Your task to perform on an android device: Clear the cart on costco. Add "usb-c" to the cart on costco Image 0: 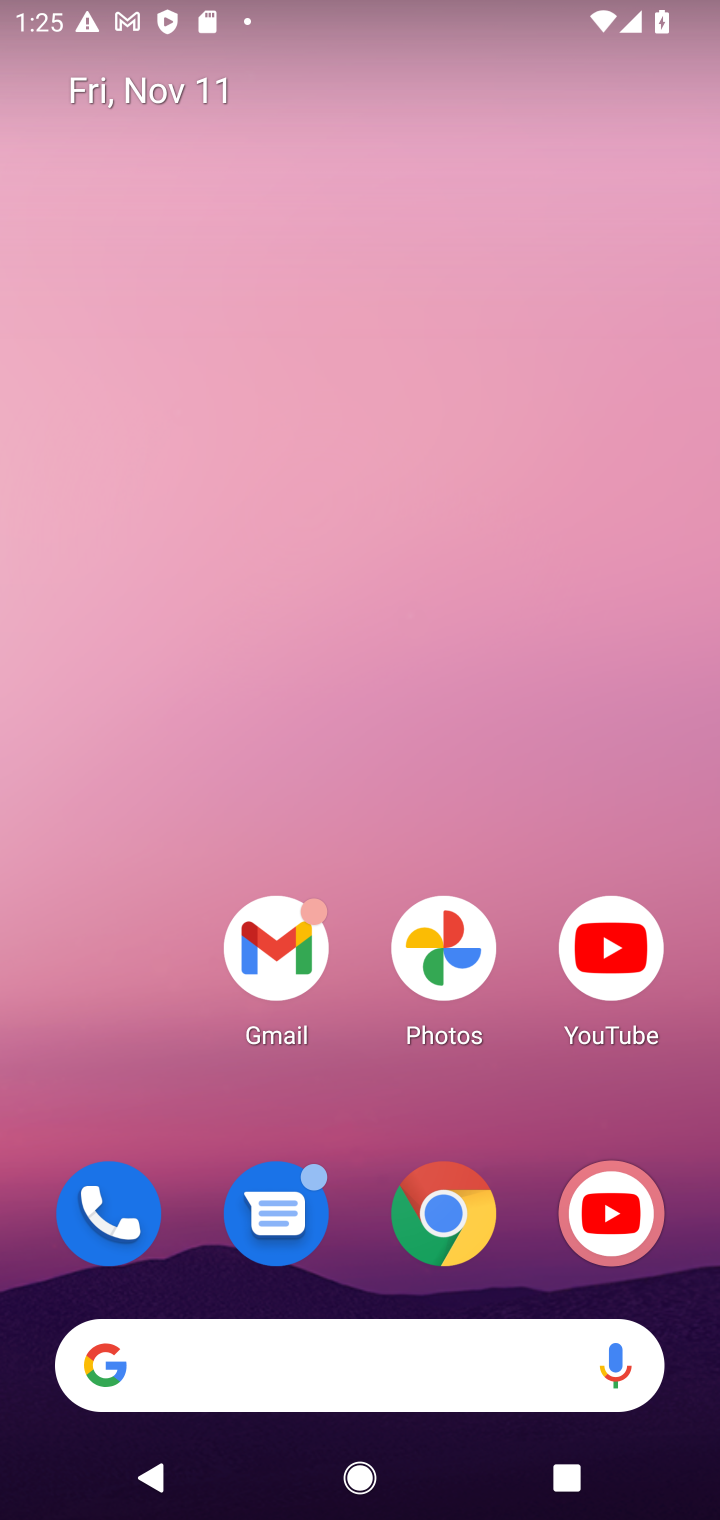
Step 0: click (440, 1202)
Your task to perform on an android device: Clear the cart on costco. Add "usb-c" to the cart on costco Image 1: 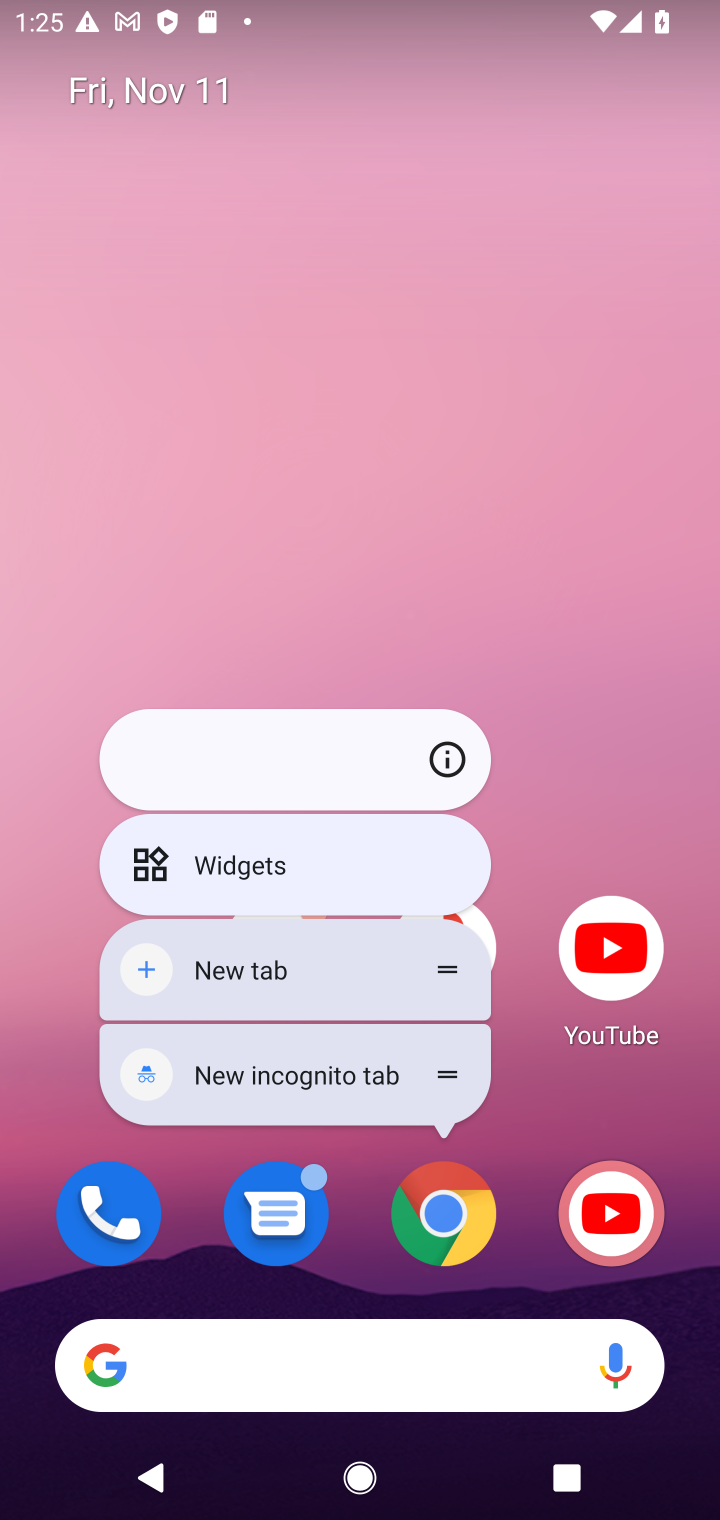
Step 1: click (440, 1204)
Your task to perform on an android device: Clear the cart on costco. Add "usb-c" to the cart on costco Image 2: 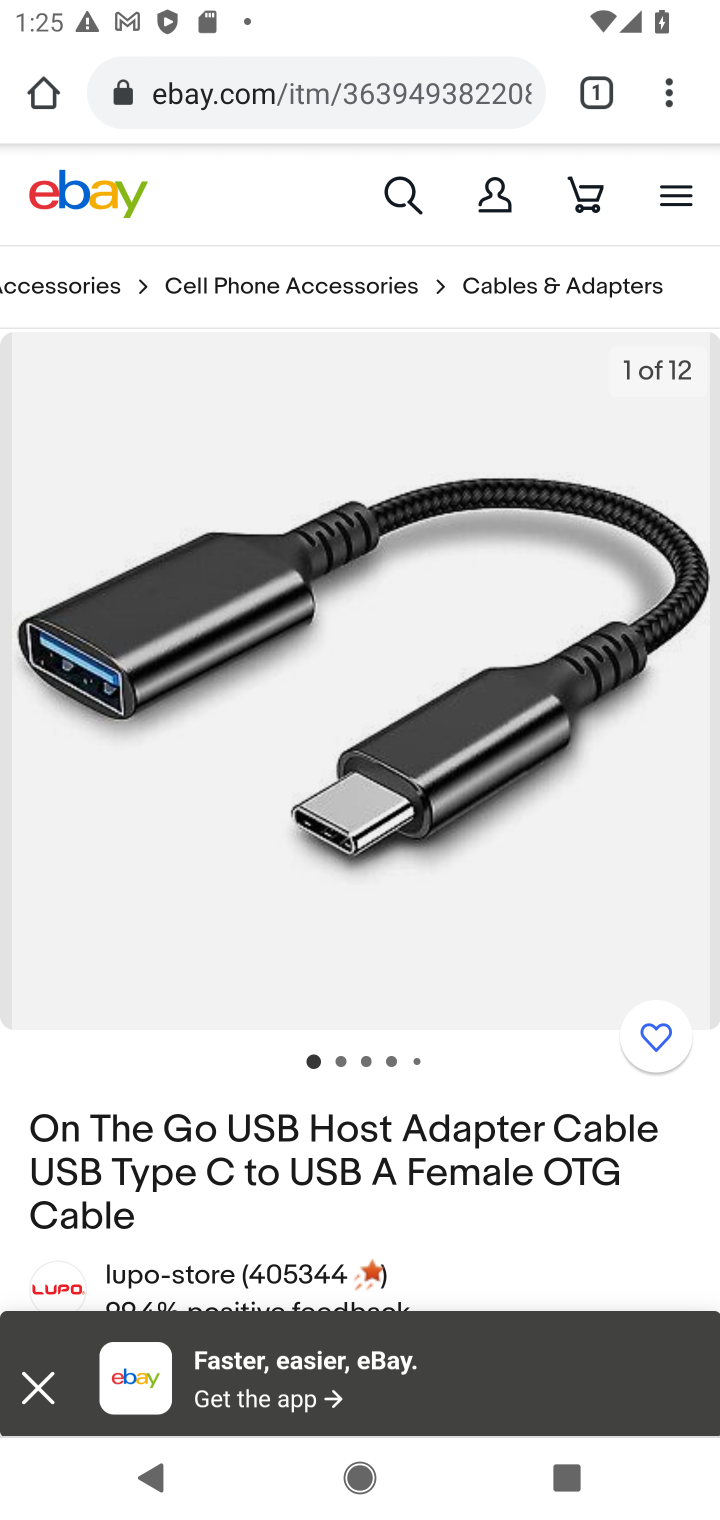
Step 2: click (444, 88)
Your task to perform on an android device: Clear the cart on costco. Add "usb-c" to the cart on costco Image 3: 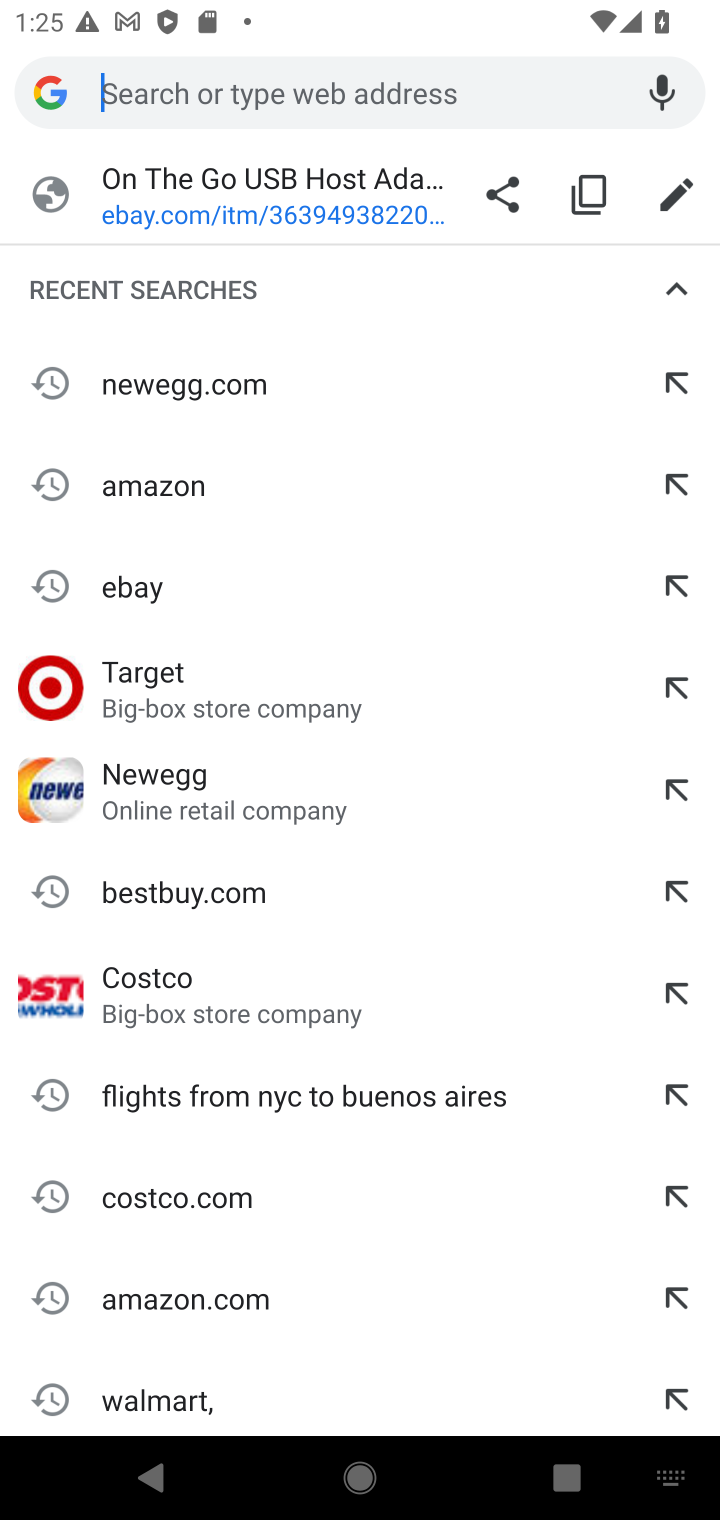
Step 3: click (174, 976)
Your task to perform on an android device: Clear the cart on costco. Add "usb-c" to the cart on costco Image 4: 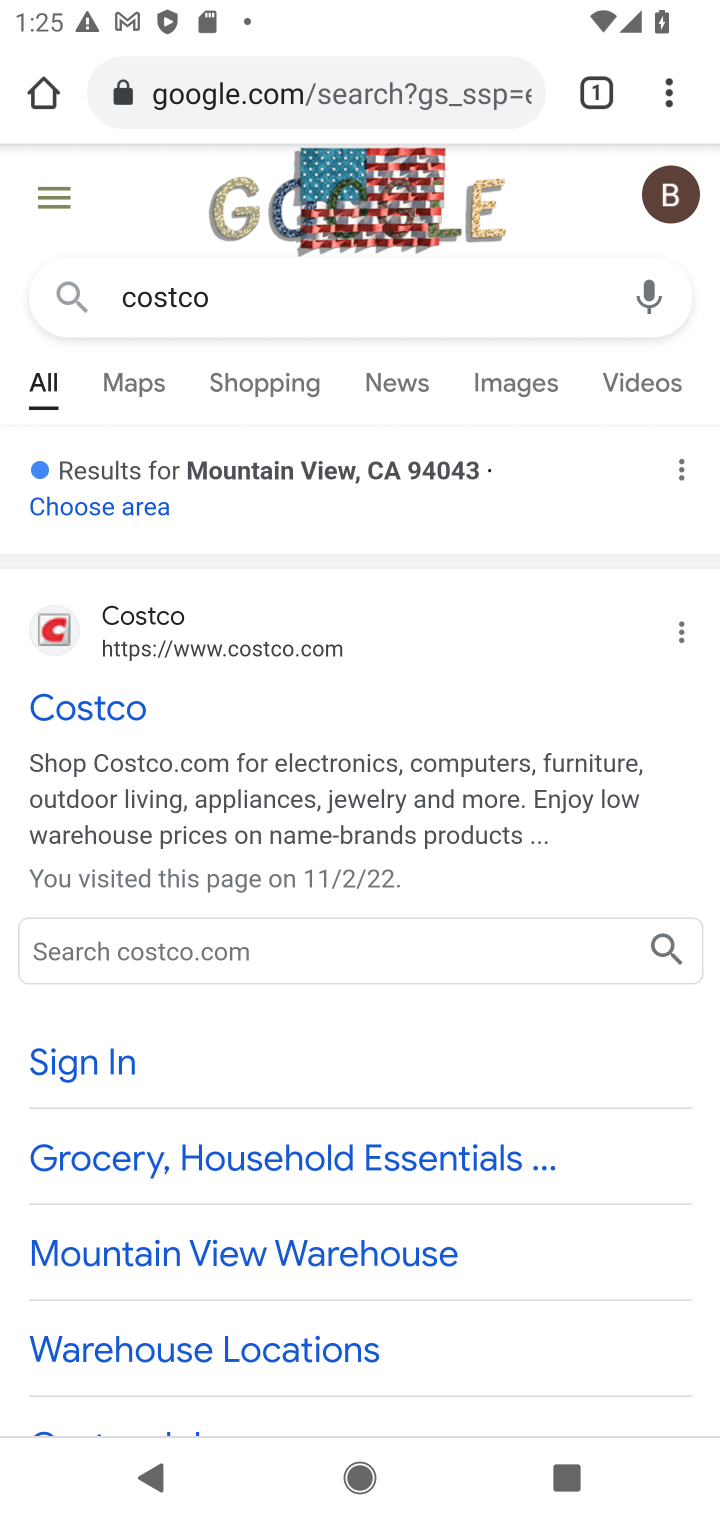
Step 4: click (49, 719)
Your task to perform on an android device: Clear the cart on costco. Add "usb-c" to the cart on costco Image 5: 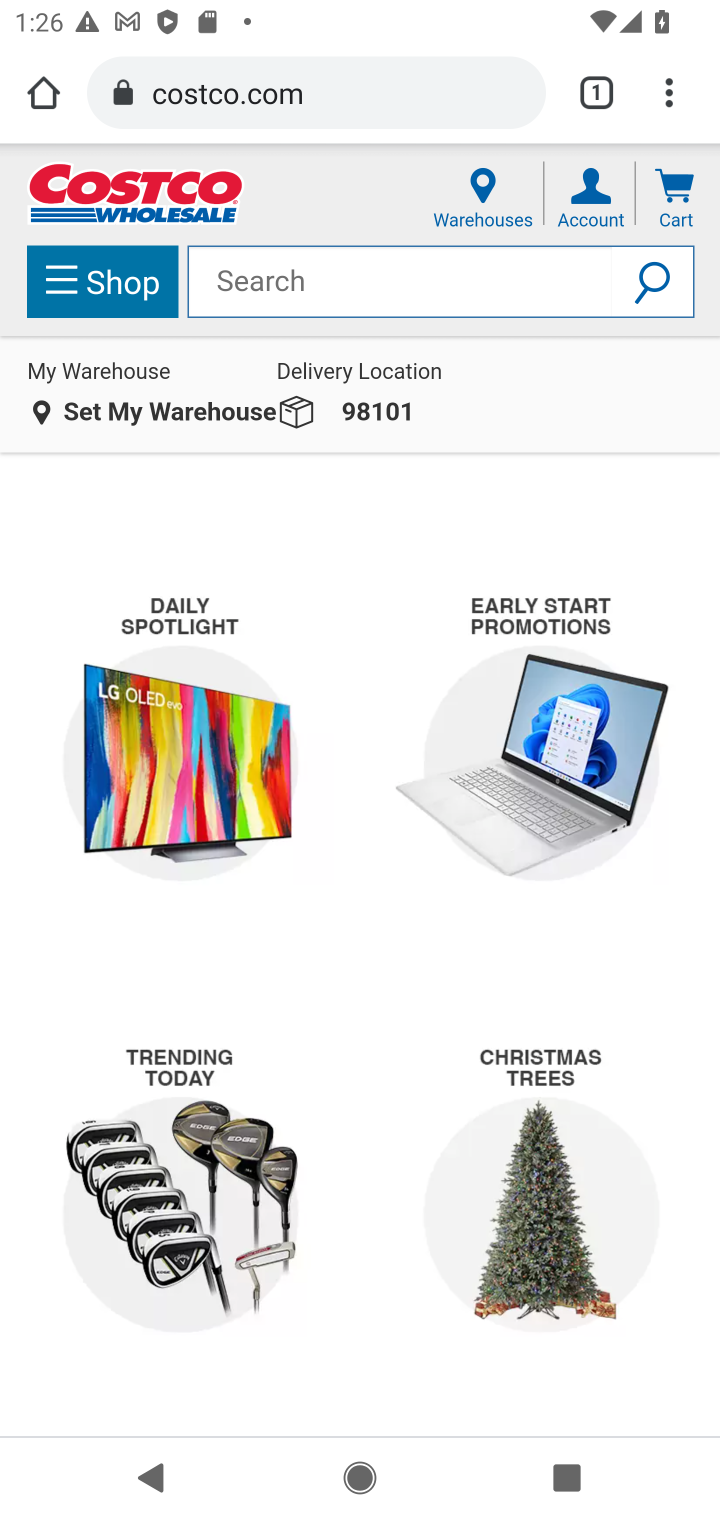
Step 5: click (458, 273)
Your task to perform on an android device: Clear the cart on costco. Add "usb-c" to the cart on costco Image 6: 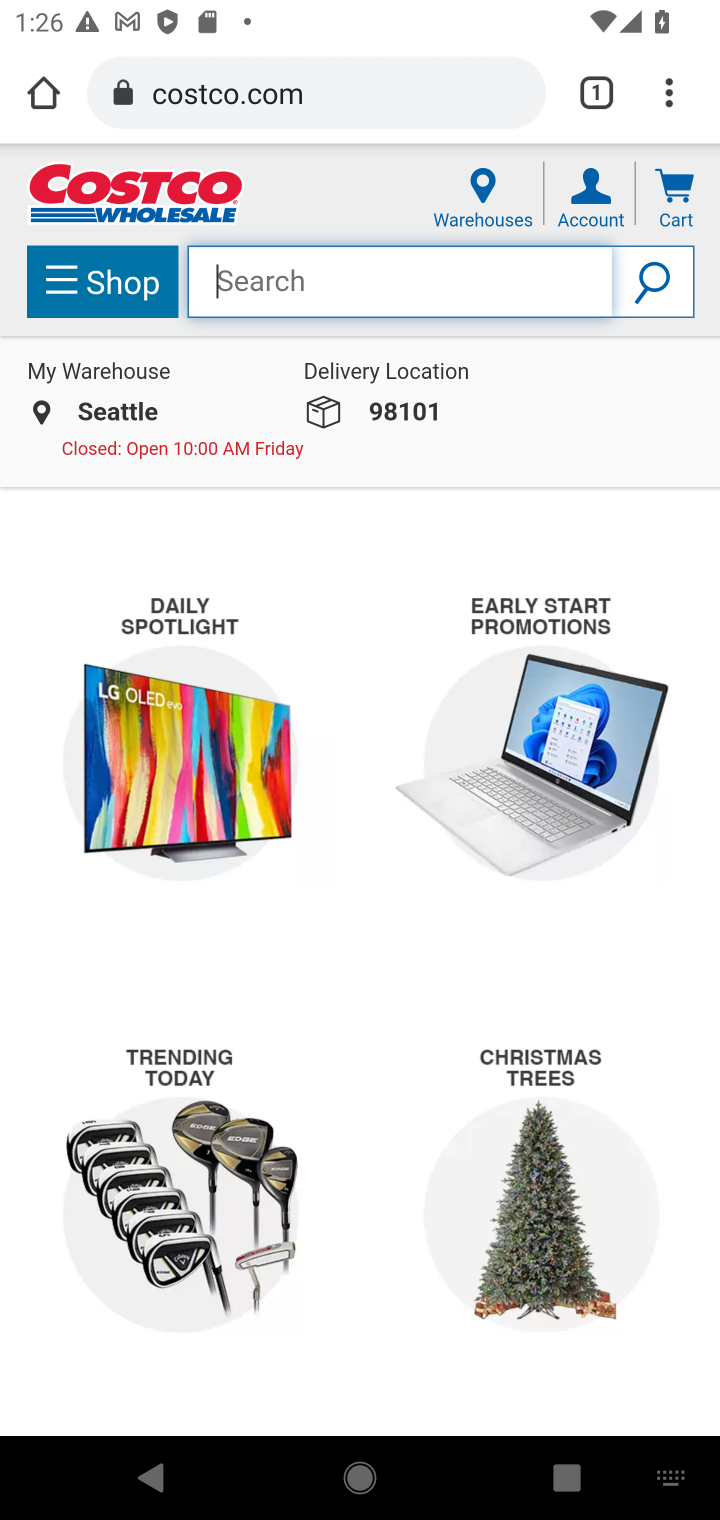
Step 6: type "usb-c"
Your task to perform on an android device: Clear the cart on costco. Add "usb-c" to the cart on costco Image 7: 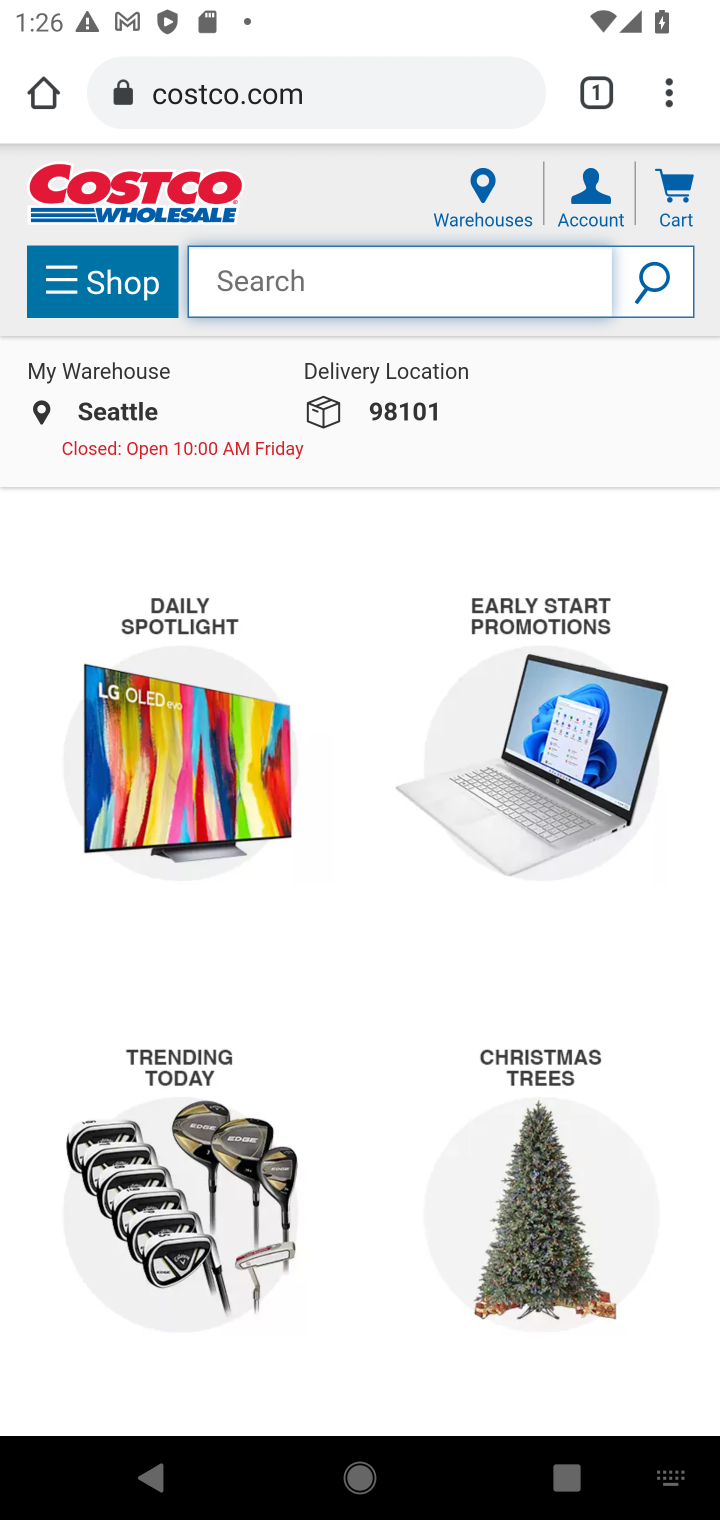
Step 7: press enter
Your task to perform on an android device: Clear the cart on costco. Add "usb-c" to the cart on costco Image 8: 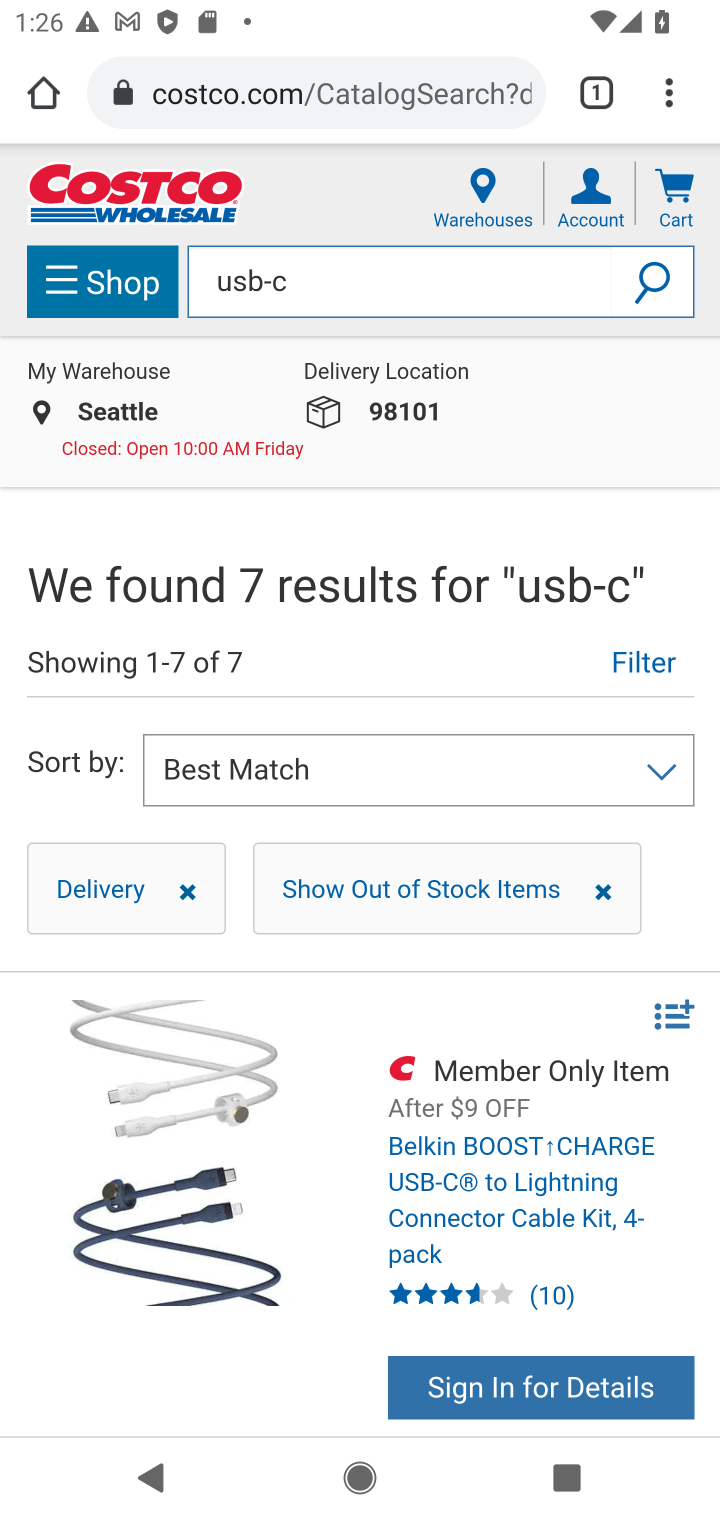
Step 8: click (444, 1193)
Your task to perform on an android device: Clear the cart on costco. Add "usb-c" to the cart on costco Image 9: 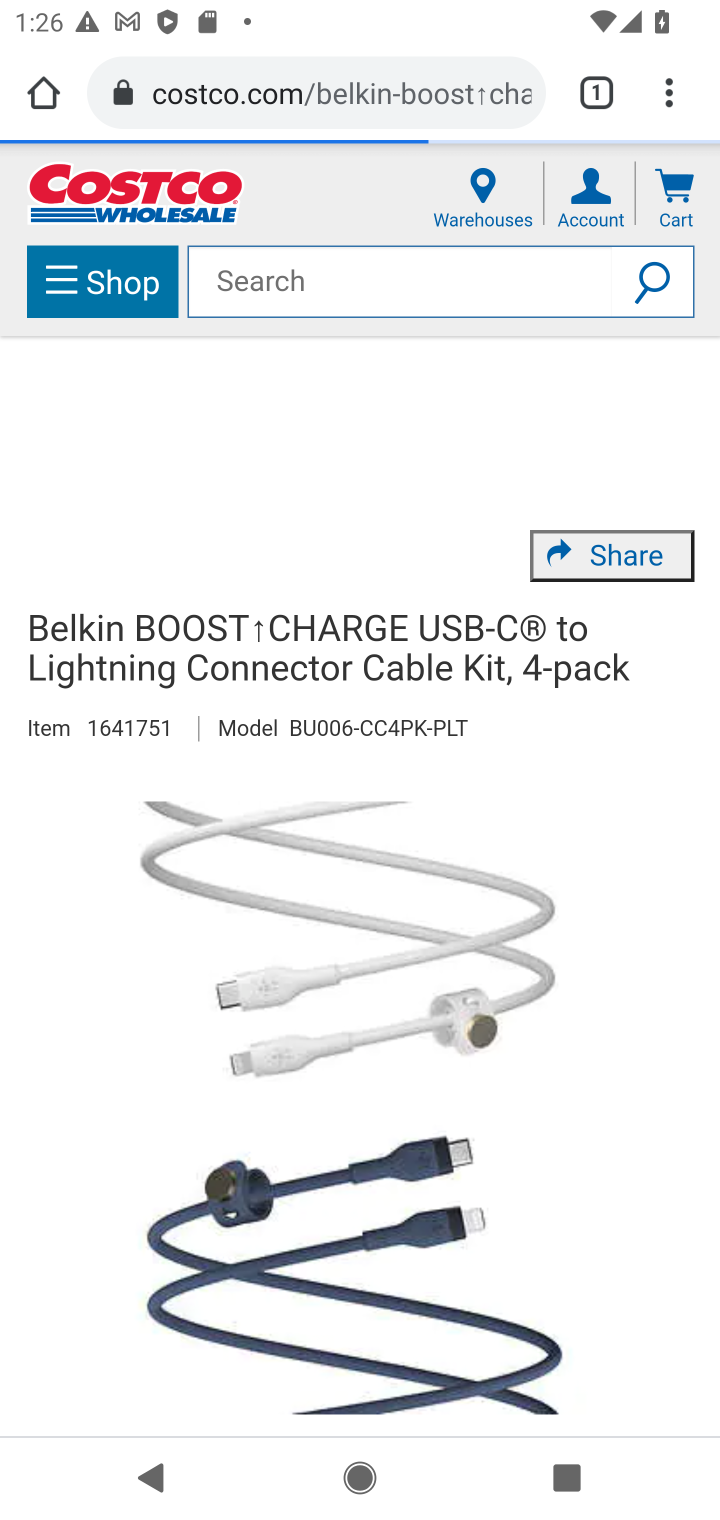
Step 9: click (501, 1193)
Your task to perform on an android device: Clear the cart on costco. Add "usb-c" to the cart on costco Image 10: 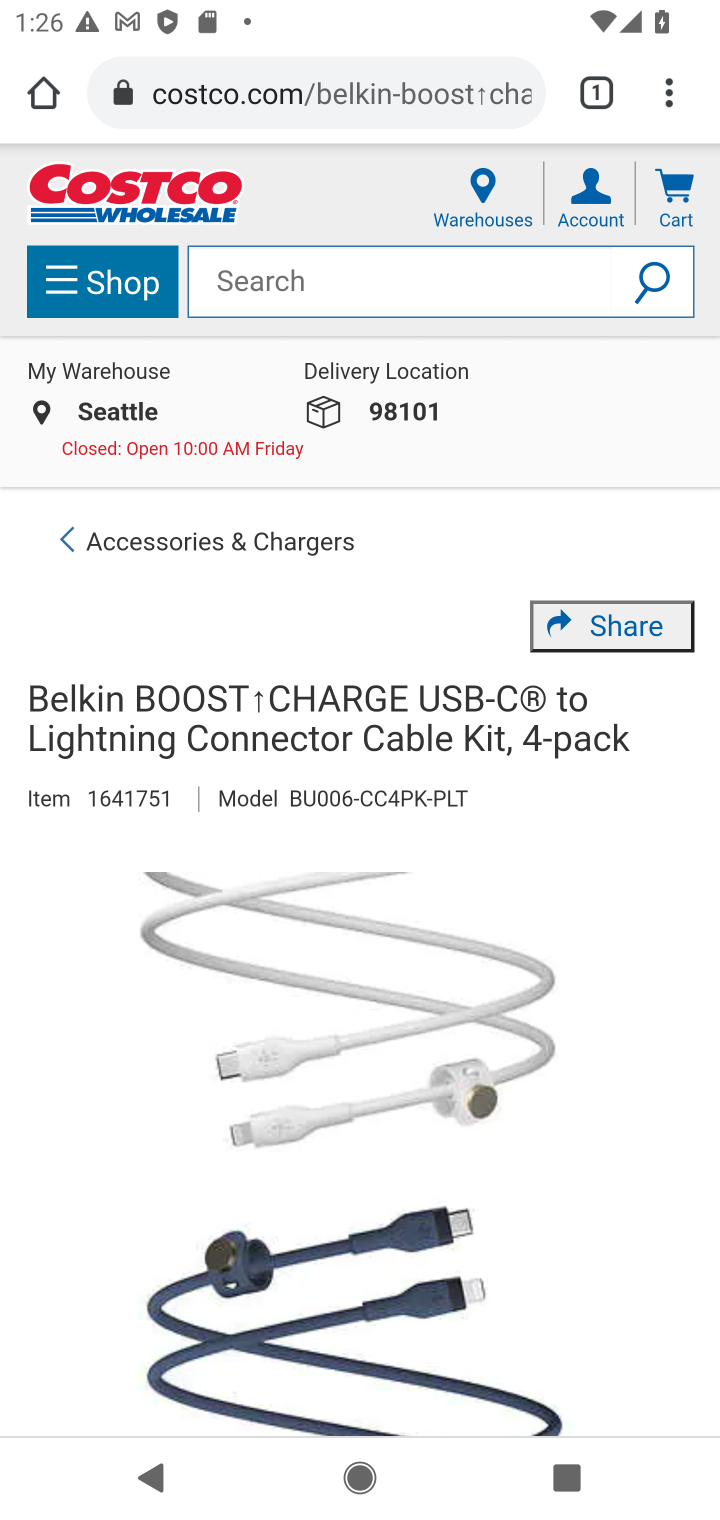
Step 10: task complete